Your task to perform on an android device: set an alarm Image 0: 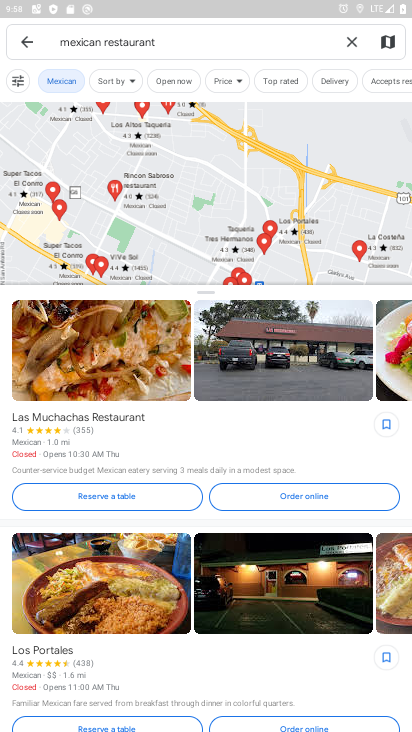
Step 0: press home button
Your task to perform on an android device: set an alarm Image 1: 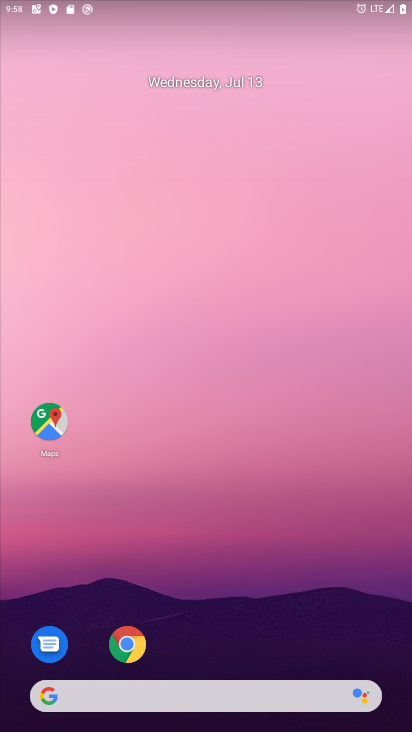
Step 1: drag from (209, 730) to (206, 74)
Your task to perform on an android device: set an alarm Image 2: 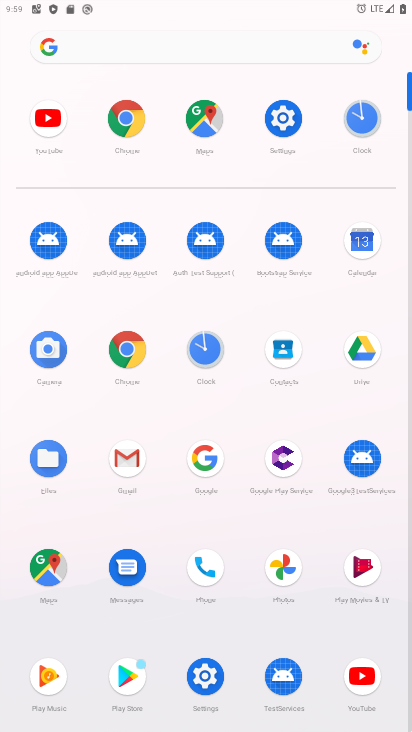
Step 2: click (208, 349)
Your task to perform on an android device: set an alarm Image 3: 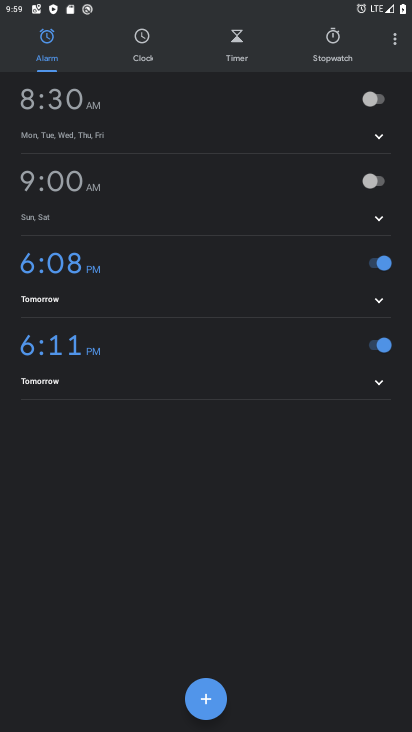
Step 3: click (202, 694)
Your task to perform on an android device: set an alarm Image 4: 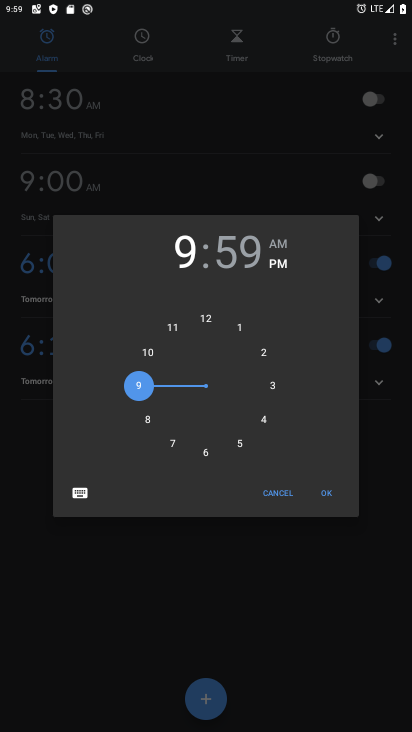
Step 4: click (213, 314)
Your task to perform on an android device: set an alarm Image 5: 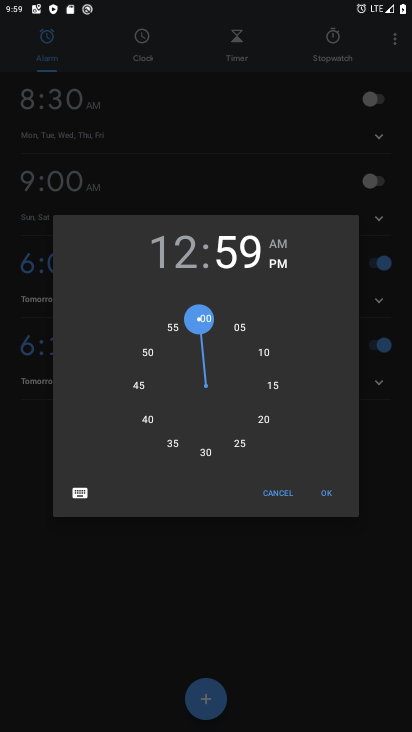
Step 5: click (323, 489)
Your task to perform on an android device: set an alarm Image 6: 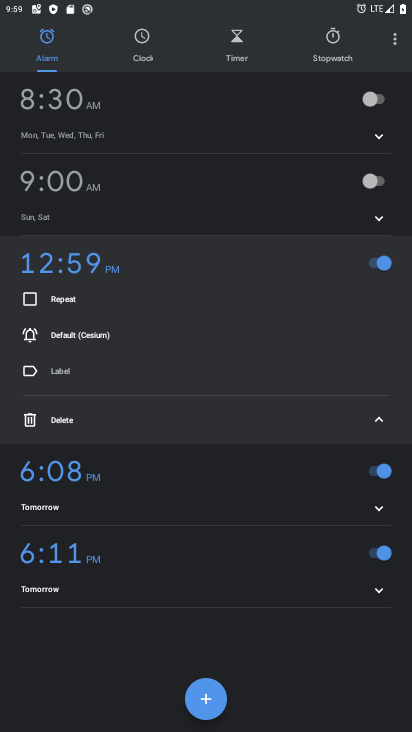
Step 6: task complete